Your task to perform on an android device: Go to calendar. Show me events next week Image 0: 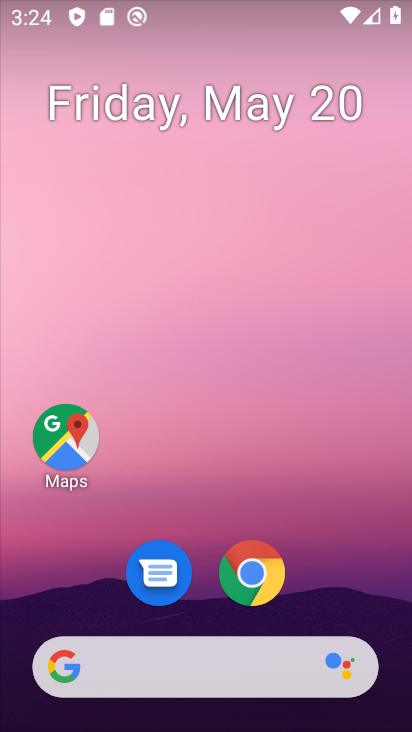
Step 0: drag from (363, 526) to (363, 141)
Your task to perform on an android device: Go to calendar. Show me events next week Image 1: 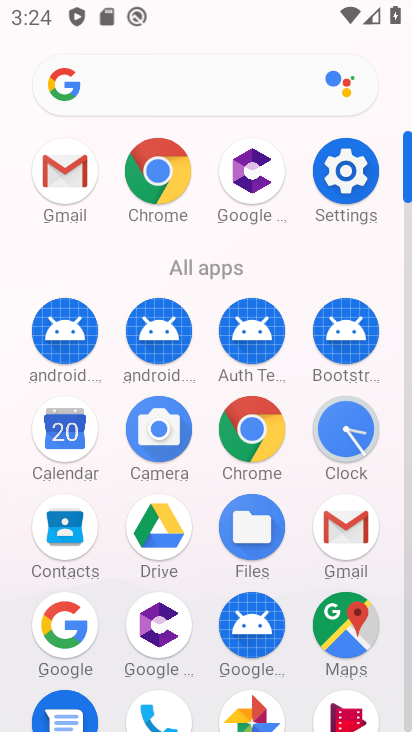
Step 1: click (55, 429)
Your task to perform on an android device: Go to calendar. Show me events next week Image 2: 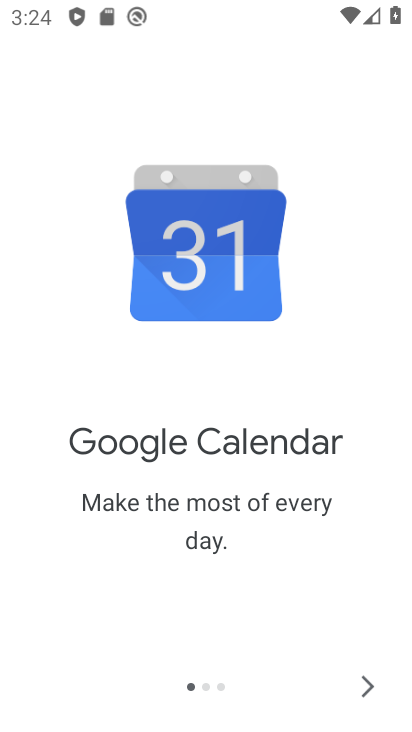
Step 2: click (368, 697)
Your task to perform on an android device: Go to calendar. Show me events next week Image 3: 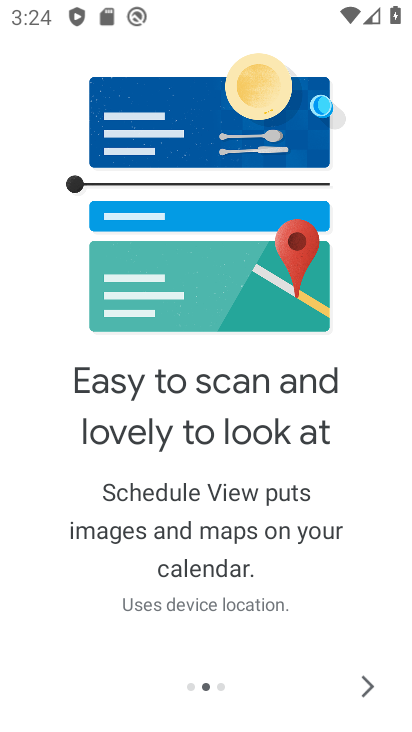
Step 3: click (368, 696)
Your task to perform on an android device: Go to calendar. Show me events next week Image 4: 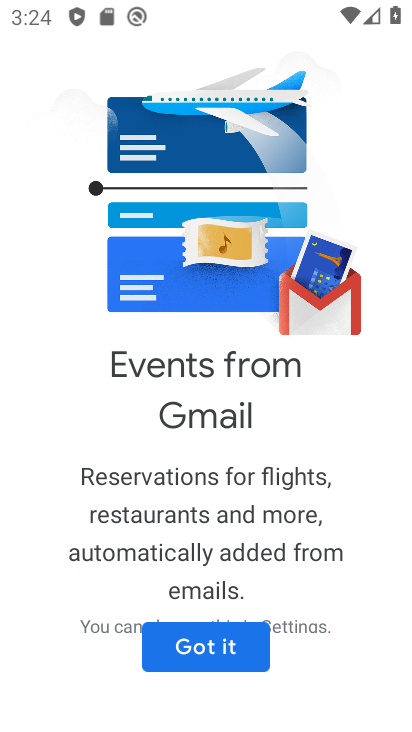
Step 4: click (222, 650)
Your task to perform on an android device: Go to calendar. Show me events next week Image 5: 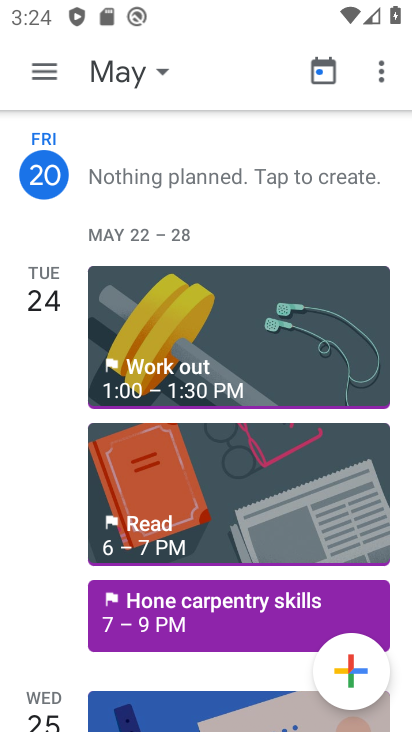
Step 5: click (111, 83)
Your task to perform on an android device: Go to calendar. Show me events next week Image 6: 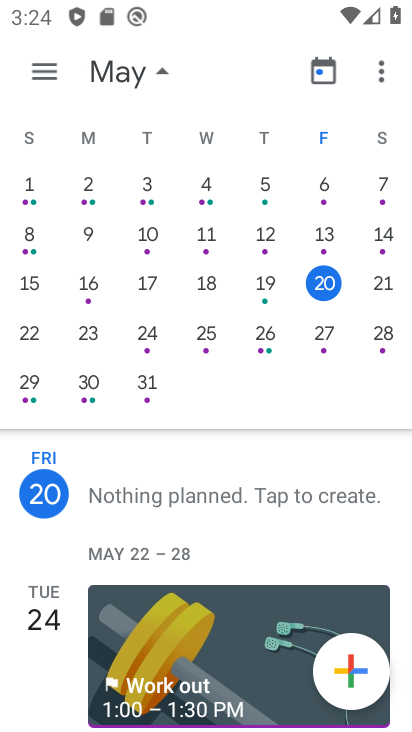
Step 6: click (24, 333)
Your task to perform on an android device: Go to calendar. Show me events next week Image 7: 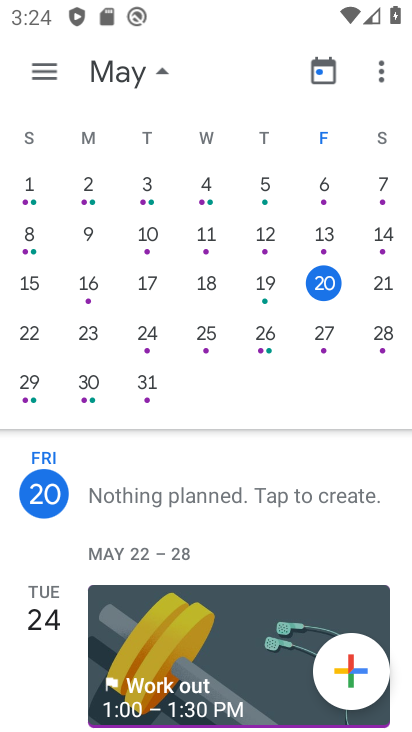
Step 7: click (33, 336)
Your task to perform on an android device: Go to calendar. Show me events next week Image 8: 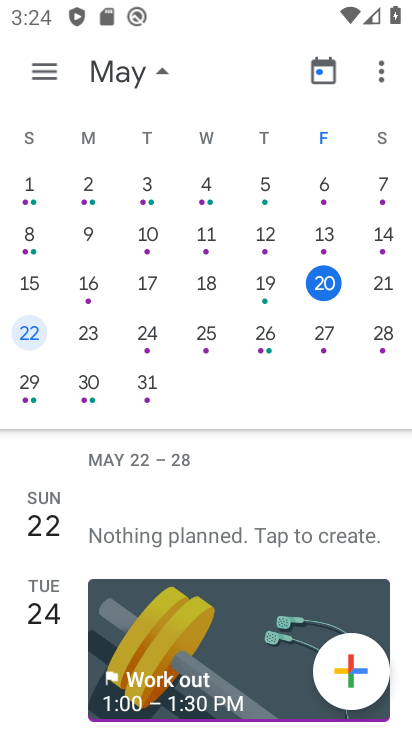
Step 8: task complete